Your task to perform on an android device: Is it going to rain today? Image 0: 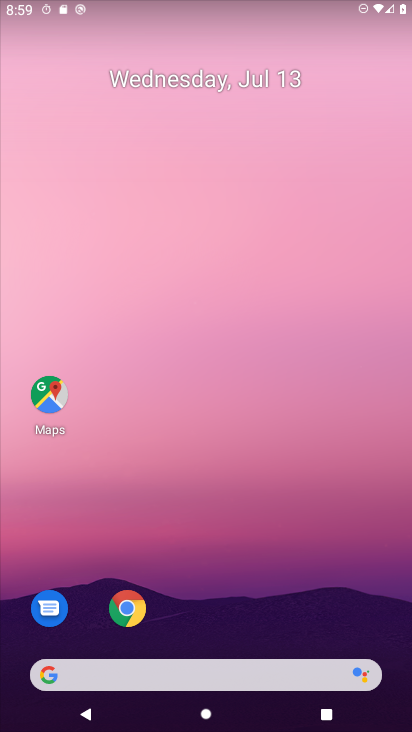
Step 0: drag from (250, 701) to (187, 186)
Your task to perform on an android device: Is it going to rain today? Image 1: 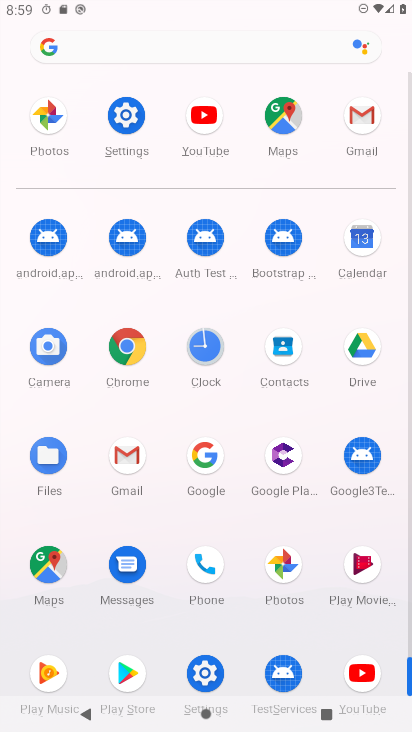
Step 1: click (131, 345)
Your task to perform on an android device: Is it going to rain today? Image 2: 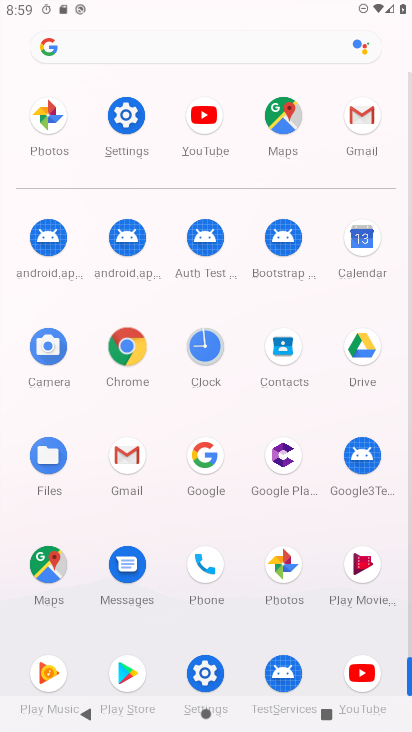
Step 2: click (132, 346)
Your task to perform on an android device: Is it going to rain today? Image 3: 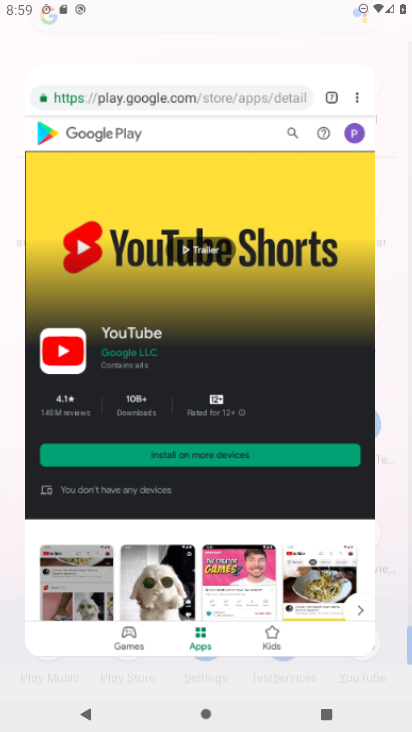
Step 3: click (137, 343)
Your task to perform on an android device: Is it going to rain today? Image 4: 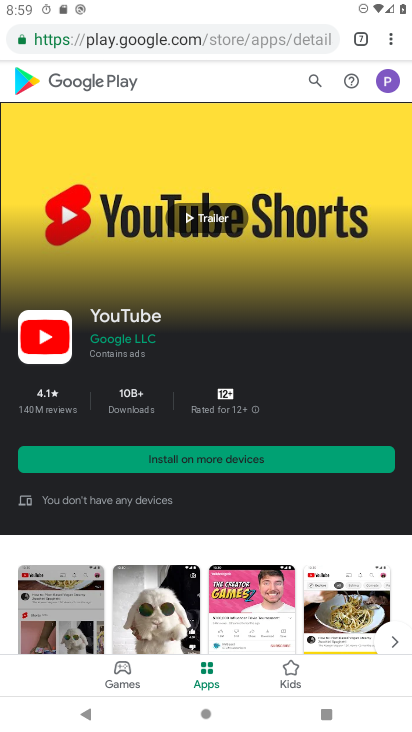
Step 4: press back button
Your task to perform on an android device: Is it going to rain today? Image 5: 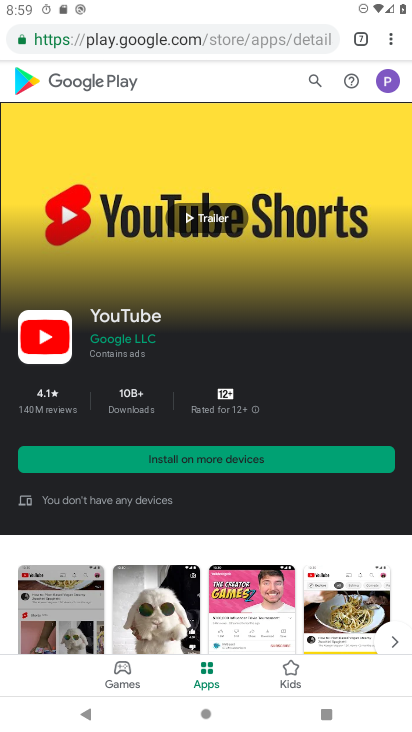
Step 5: press back button
Your task to perform on an android device: Is it going to rain today? Image 6: 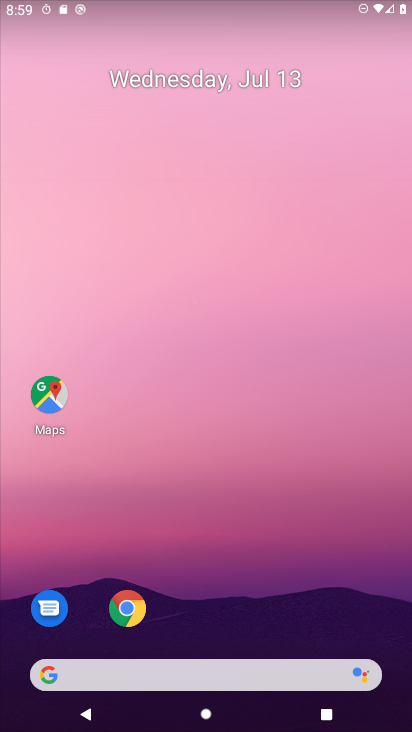
Step 6: drag from (236, 495) to (220, 334)
Your task to perform on an android device: Is it going to rain today? Image 7: 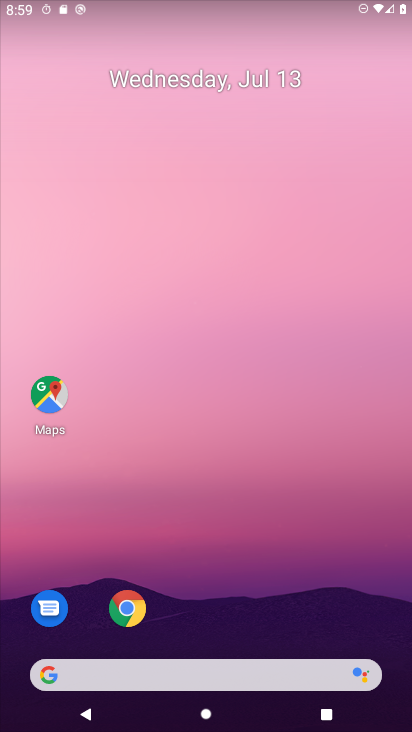
Step 7: drag from (222, 493) to (196, 290)
Your task to perform on an android device: Is it going to rain today? Image 8: 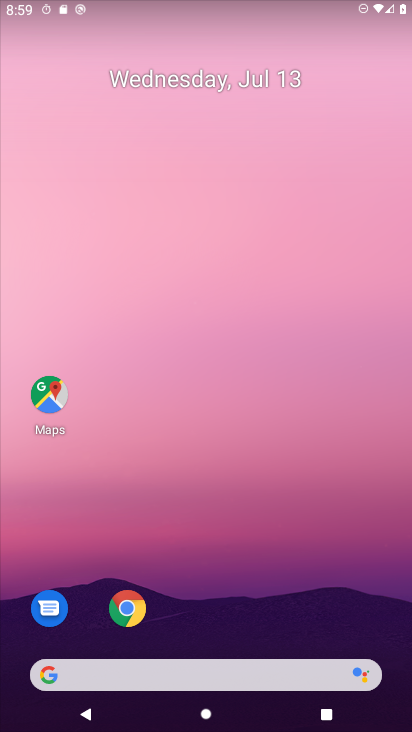
Step 8: drag from (217, 610) to (189, 433)
Your task to perform on an android device: Is it going to rain today? Image 9: 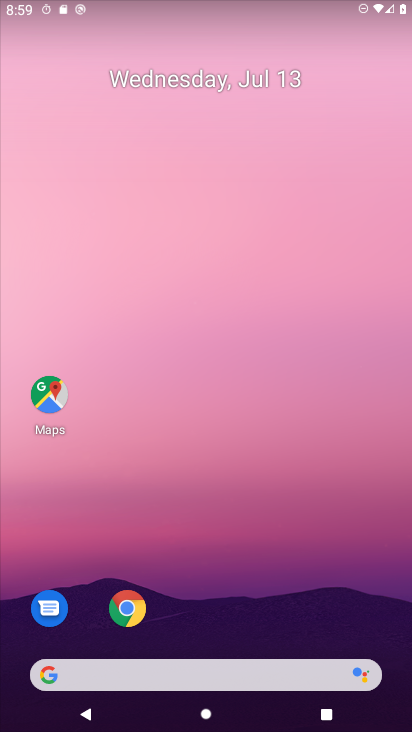
Step 9: drag from (246, 619) to (203, 213)
Your task to perform on an android device: Is it going to rain today? Image 10: 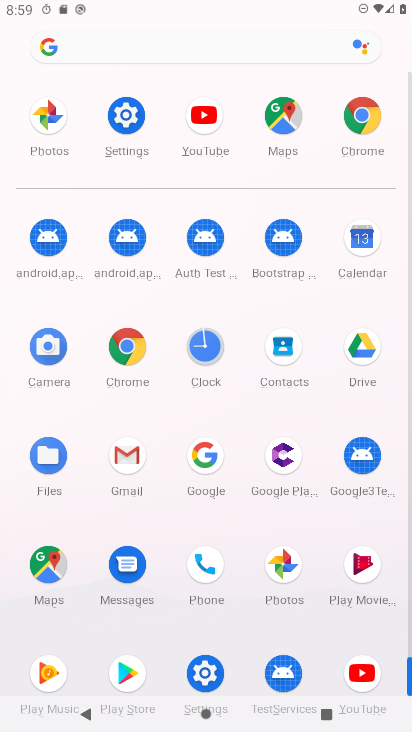
Step 10: click (358, 117)
Your task to perform on an android device: Is it going to rain today? Image 11: 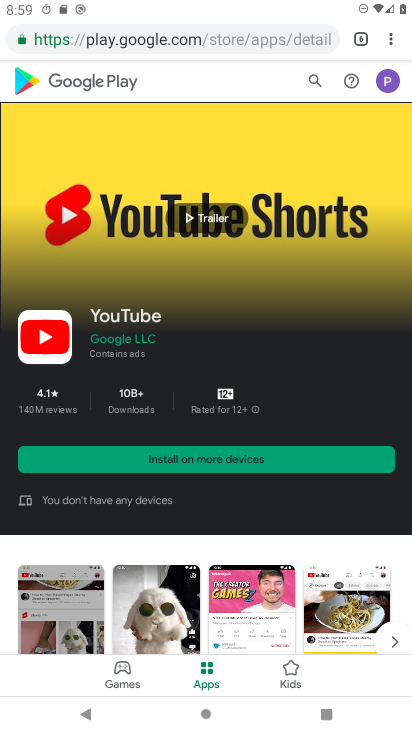
Step 11: task complete